Your task to perform on an android device: Open internet settings Image 0: 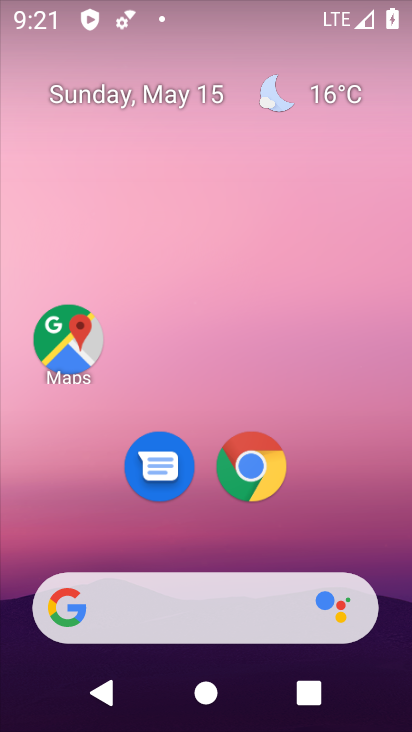
Step 0: drag from (146, 573) to (250, 104)
Your task to perform on an android device: Open internet settings Image 1: 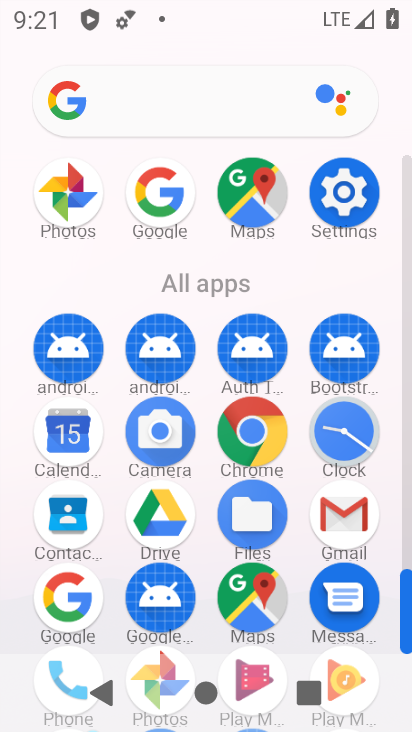
Step 1: drag from (153, 632) to (224, 430)
Your task to perform on an android device: Open internet settings Image 2: 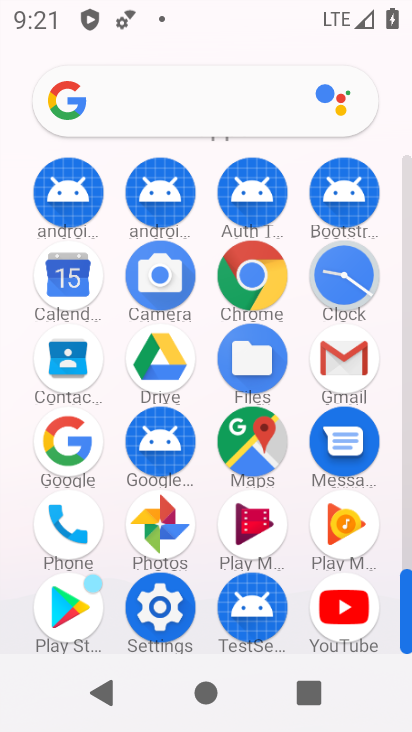
Step 2: click (166, 615)
Your task to perform on an android device: Open internet settings Image 3: 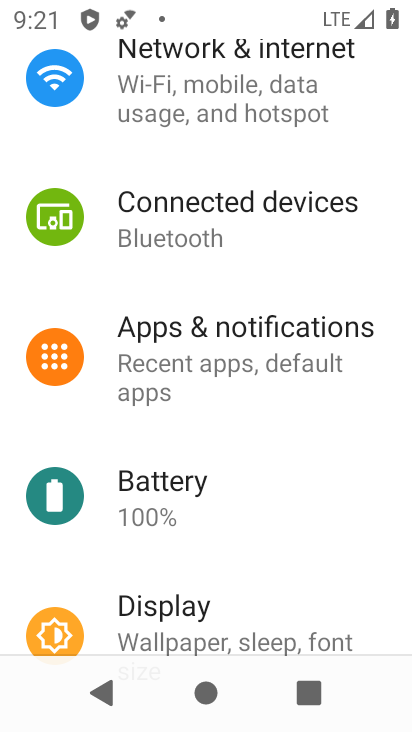
Step 3: drag from (216, 350) to (208, 499)
Your task to perform on an android device: Open internet settings Image 4: 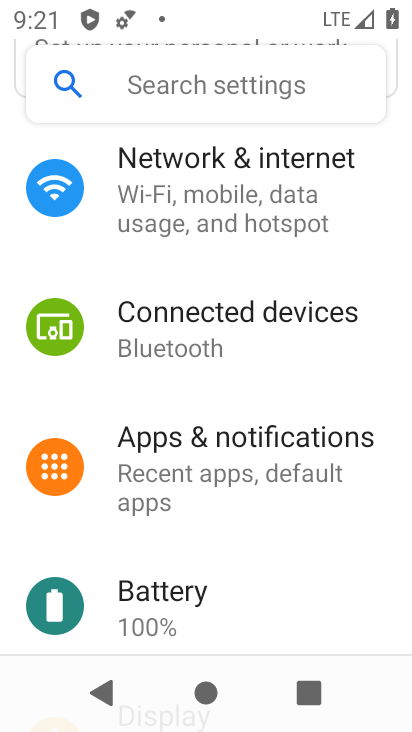
Step 4: click (231, 237)
Your task to perform on an android device: Open internet settings Image 5: 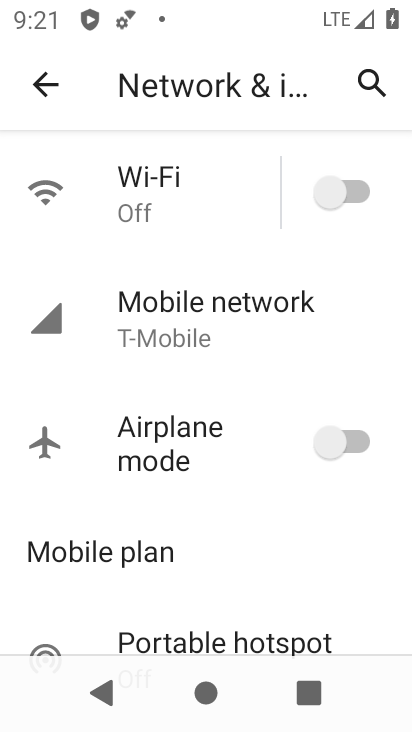
Step 5: click (264, 335)
Your task to perform on an android device: Open internet settings Image 6: 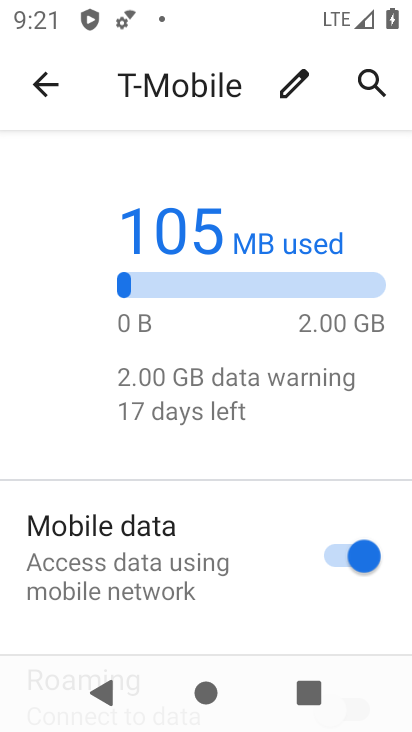
Step 6: task complete